Your task to perform on an android device: Go to notification settings Image 0: 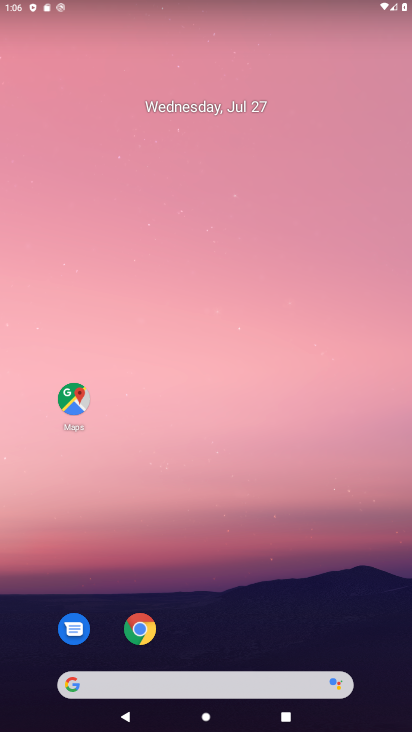
Step 0: press home button
Your task to perform on an android device: Go to notification settings Image 1: 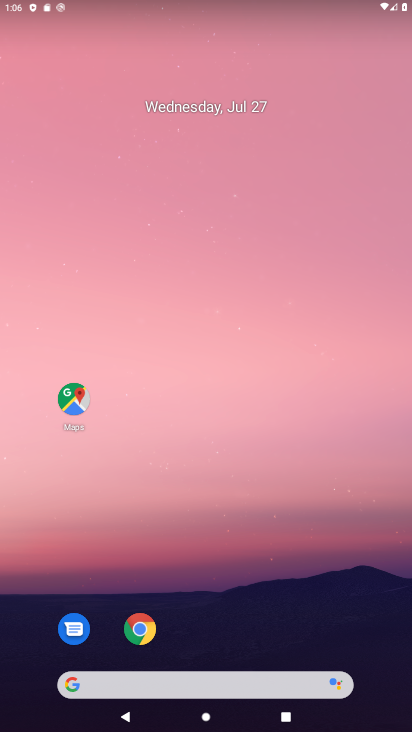
Step 1: drag from (236, 647) to (185, 145)
Your task to perform on an android device: Go to notification settings Image 2: 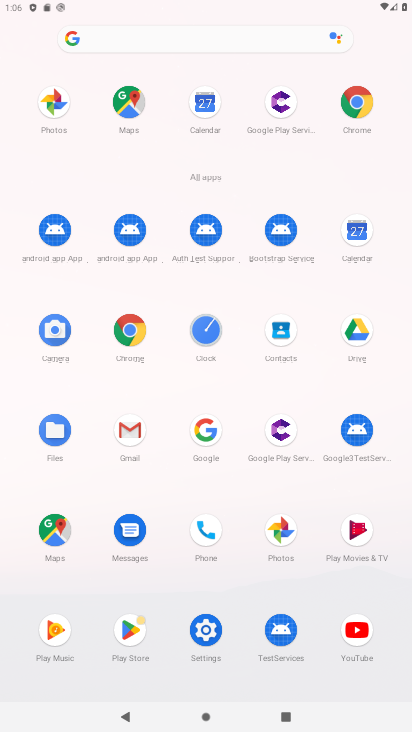
Step 2: click (211, 634)
Your task to perform on an android device: Go to notification settings Image 3: 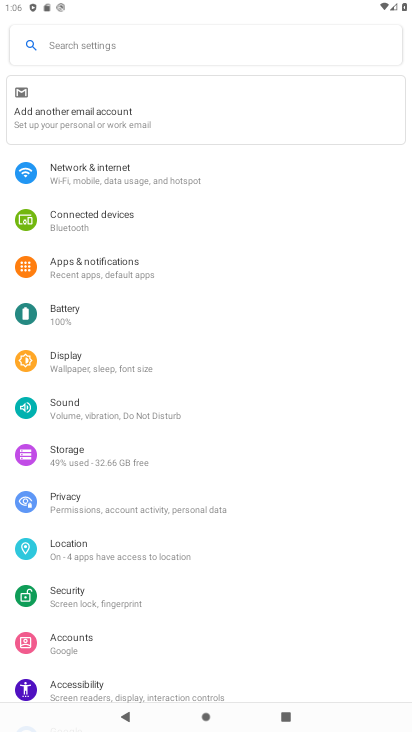
Step 3: click (110, 269)
Your task to perform on an android device: Go to notification settings Image 4: 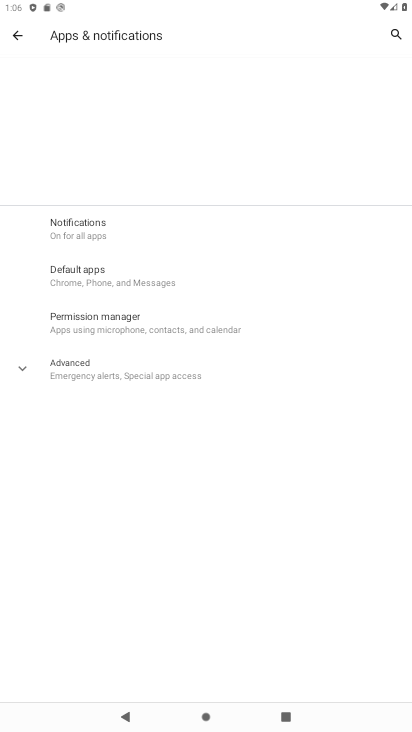
Step 4: click (78, 229)
Your task to perform on an android device: Go to notification settings Image 5: 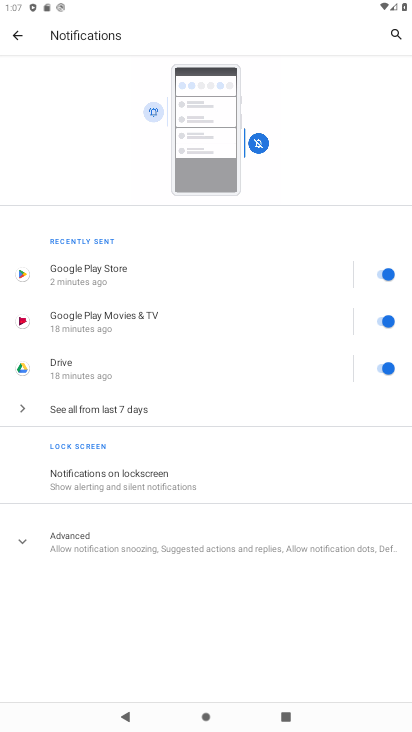
Step 5: task complete